Your task to perform on an android device: Open Android settings Image 0: 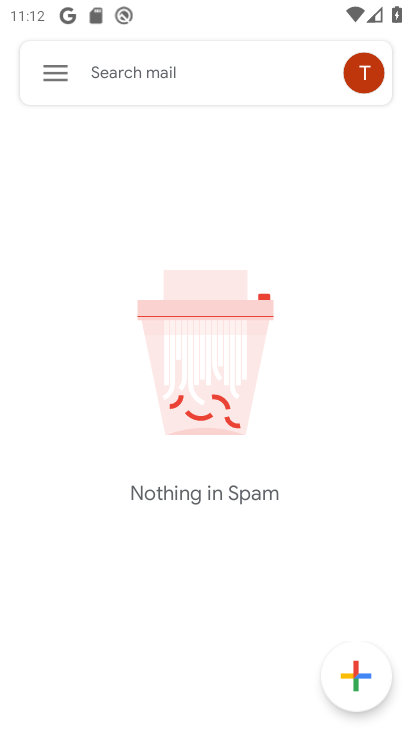
Step 0: press home button
Your task to perform on an android device: Open Android settings Image 1: 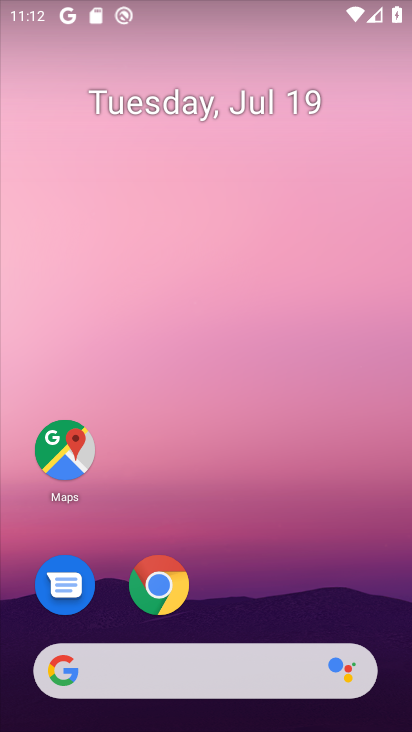
Step 1: drag from (166, 675) to (270, 213)
Your task to perform on an android device: Open Android settings Image 2: 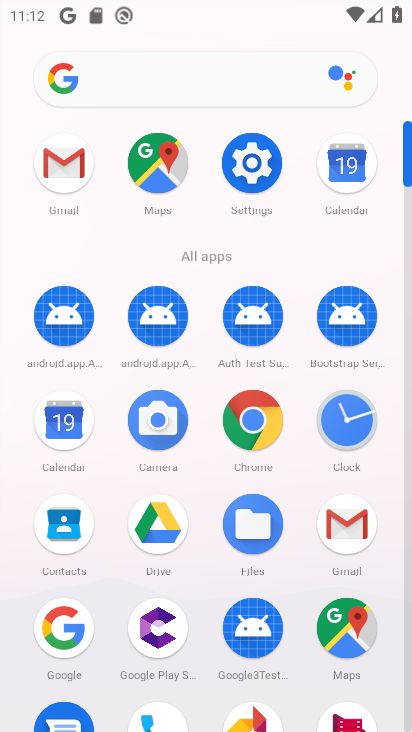
Step 2: click (254, 161)
Your task to perform on an android device: Open Android settings Image 3: 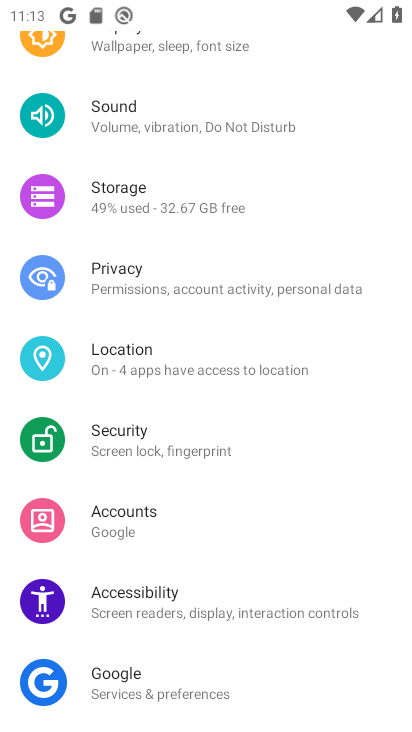
Step 3: task complete